Your task to perform on an android device: turn on bluetooth scan Image 0: 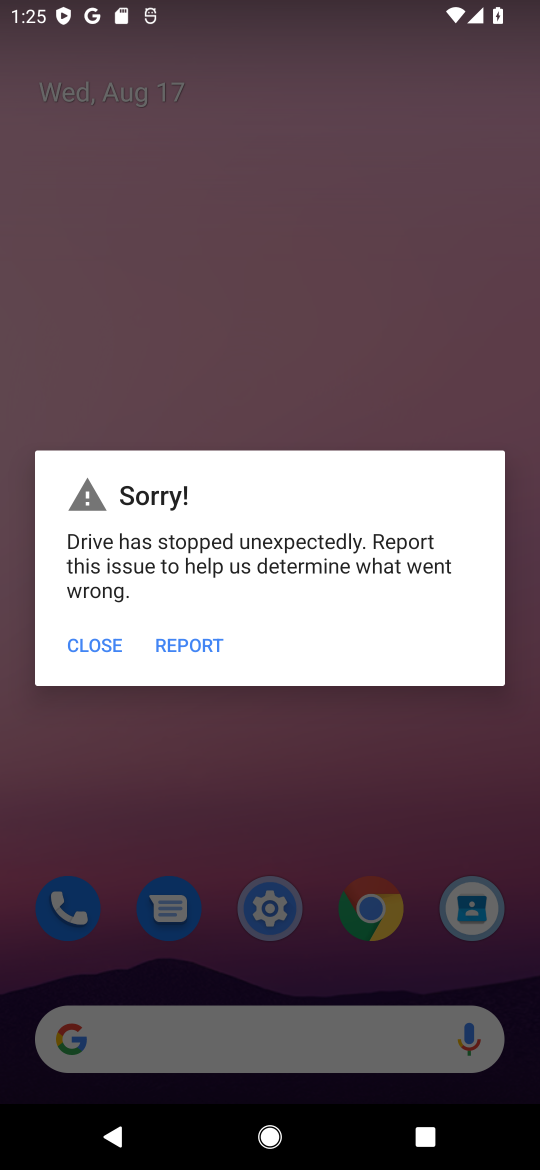
Step 0: press home button
Your task to perform on an android device: turn on bluetooth scan Image 1: 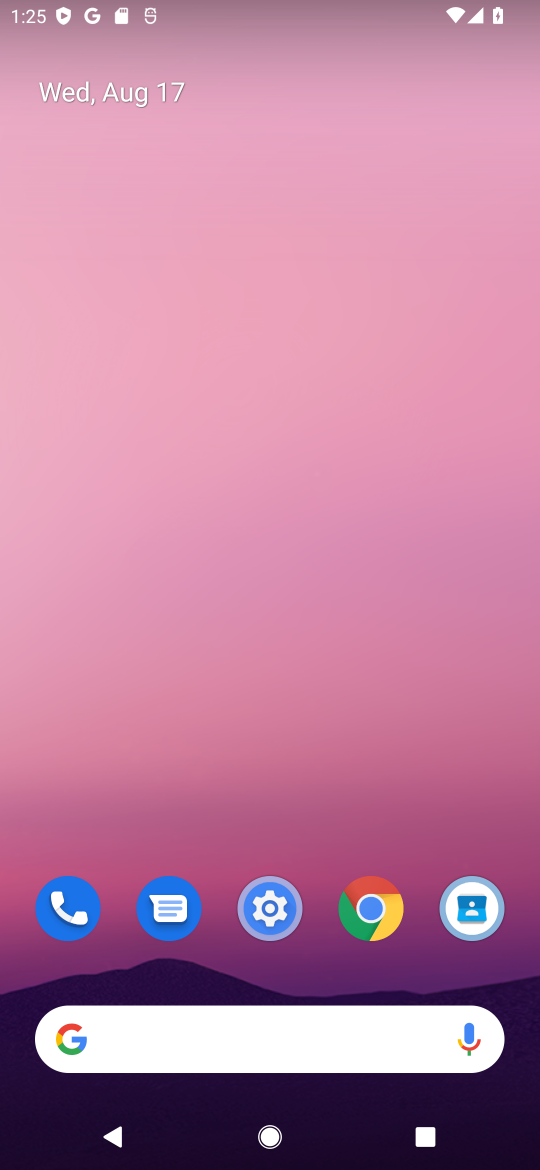
Step 1: click (274, 922)
Your task to perform on an android device: turn on bluetooth scan Image 2: 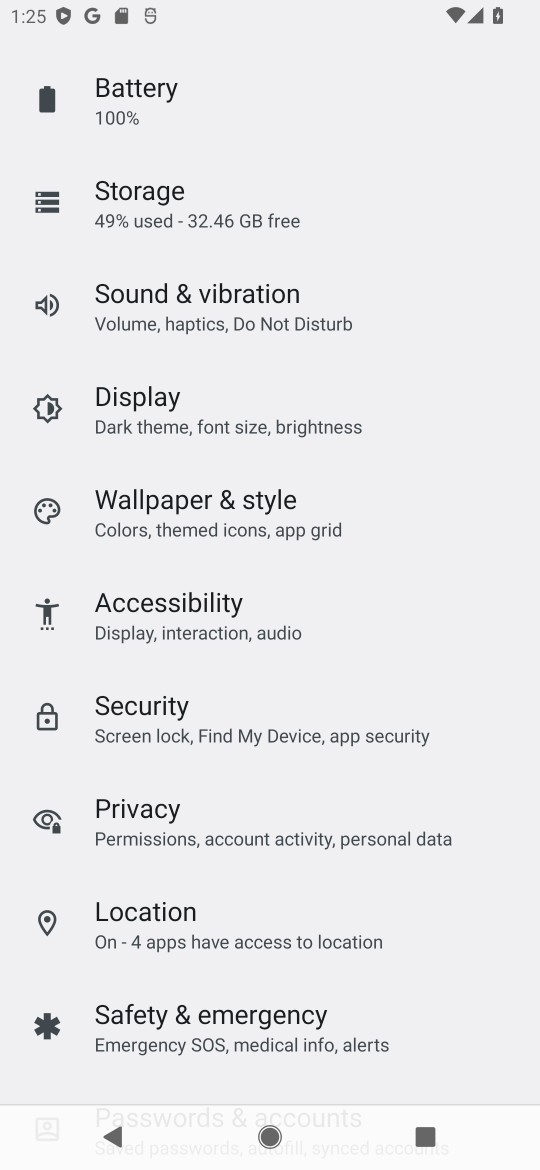
Step 2: click (160, 906)
Your task to perform on an android device: turn on bluetooth scan Image 3: 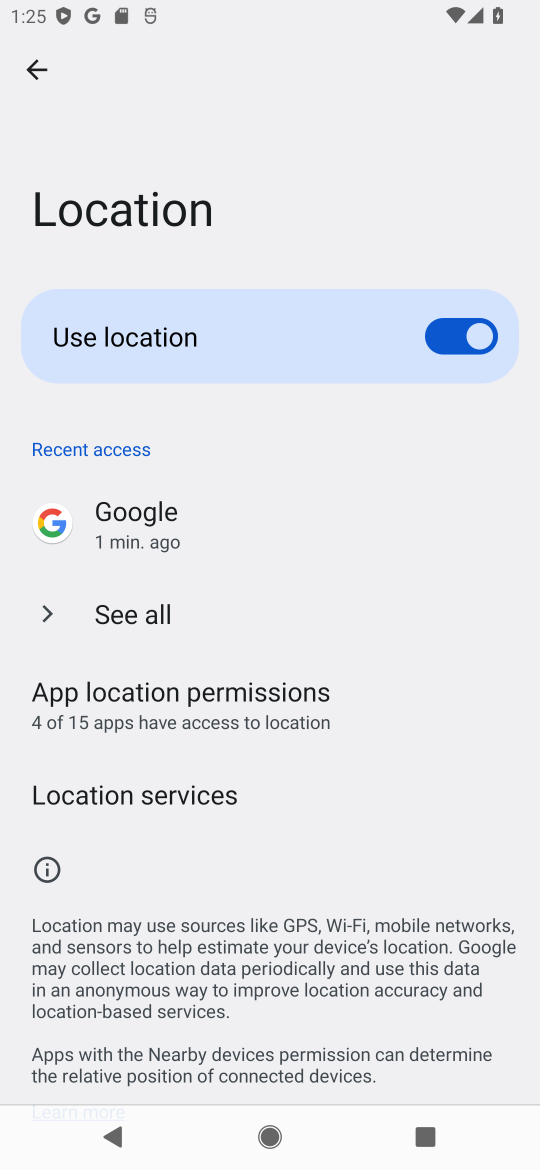
Step 3: drag from (428, 843) to (480, 142)
Your task to perform on an android device: turn on bluetooth scan Image 4: 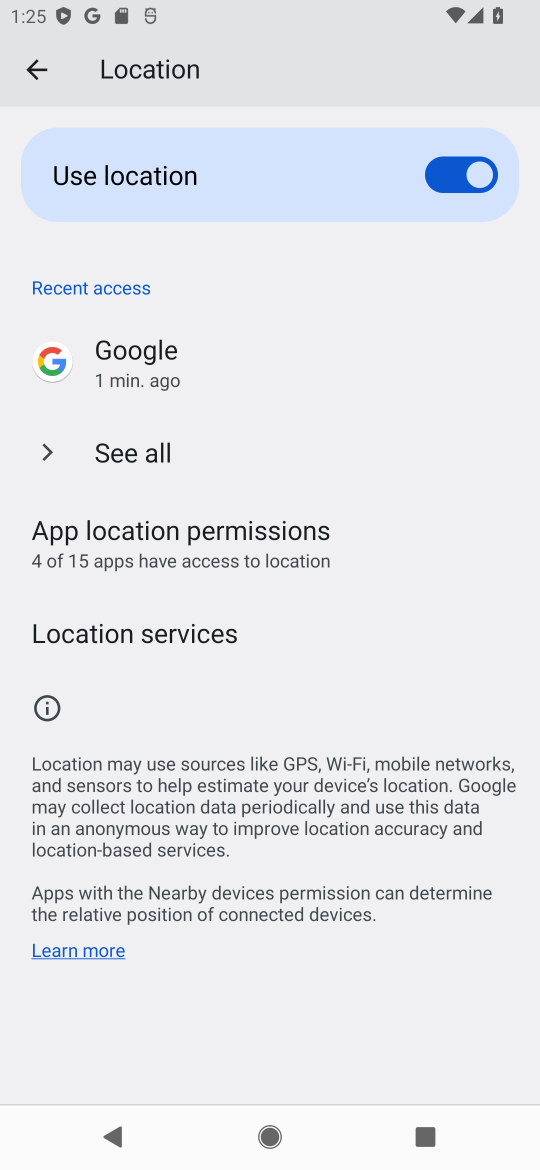
Step 4: click (163, 626)
Your task to perform on an android device: turn on bluetooth scan Image 5: 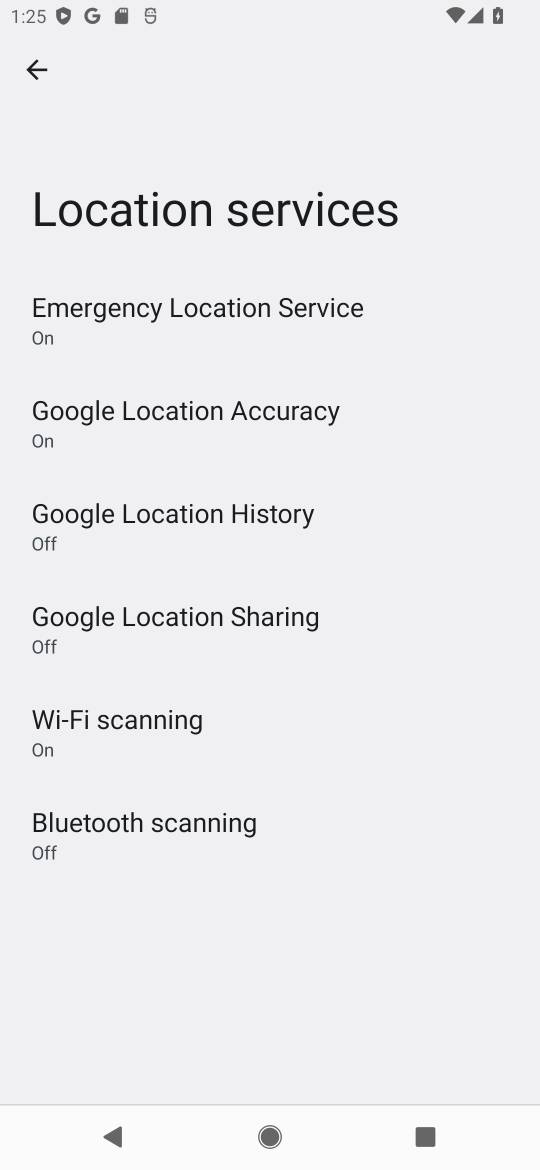
Step 5: click (149, 824)
Your task to perform on an android device: turn on bluetooth scan Image 6: 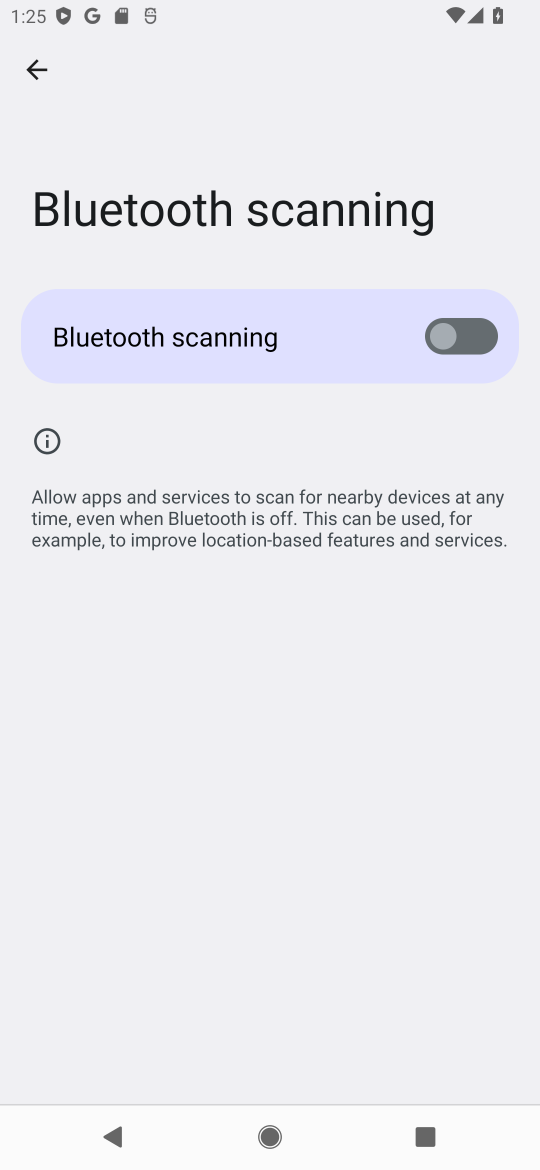
Step 6: click (429, 341)
Your task to perform on an android device: turn on bluetooth scan Image 7: 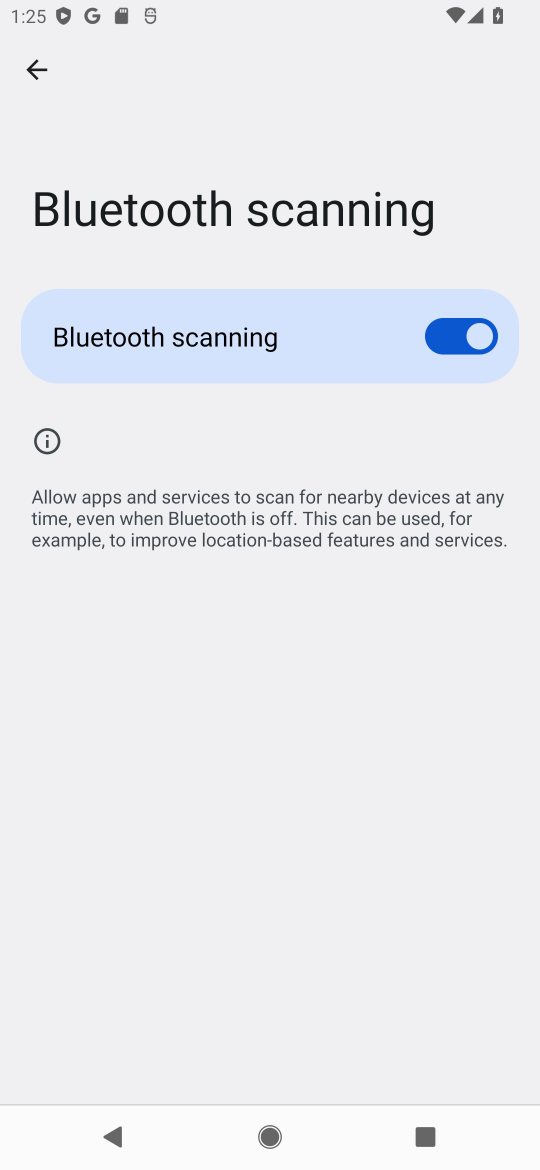
Step 7: task complete